Your task to perform on an android device: toggle wifi Image 0: 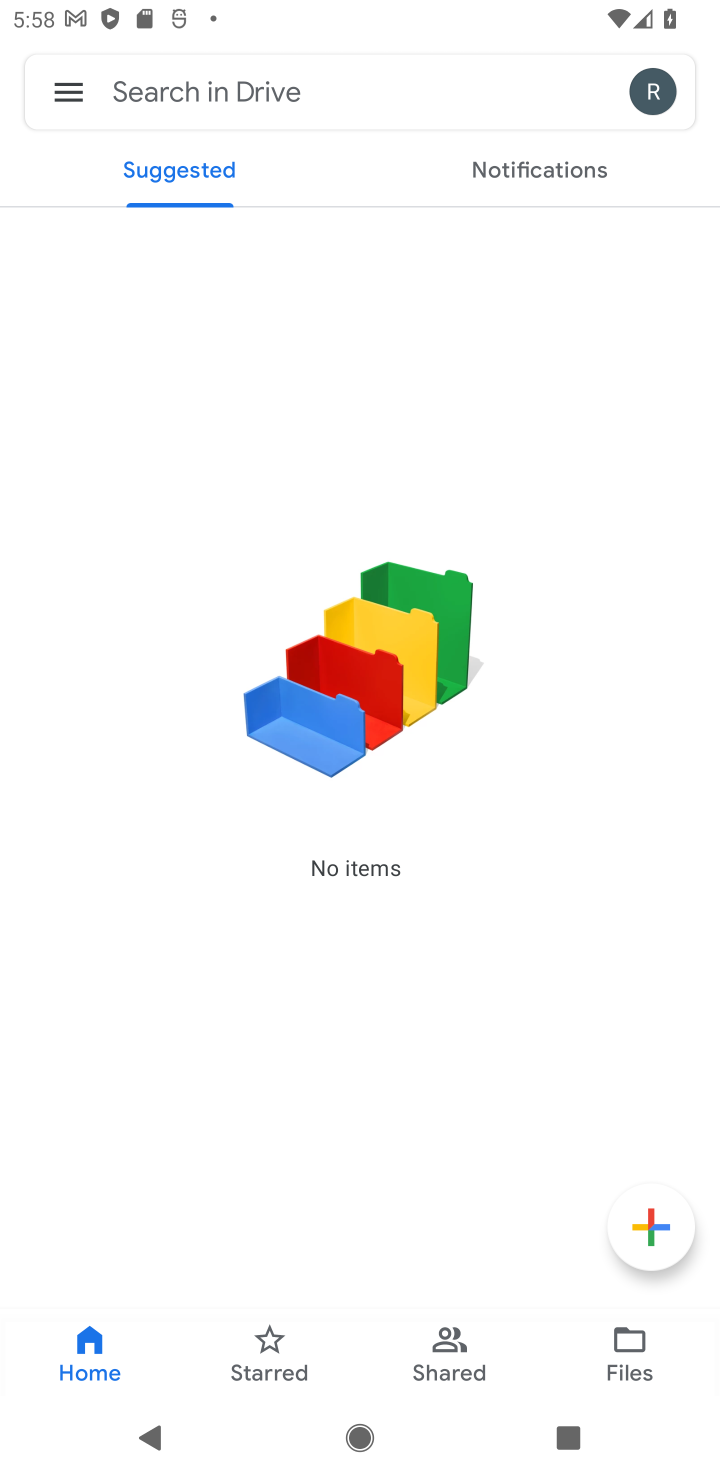
Step 0: press home button
Your task to perform on an android device: toggle wifi Image 1: 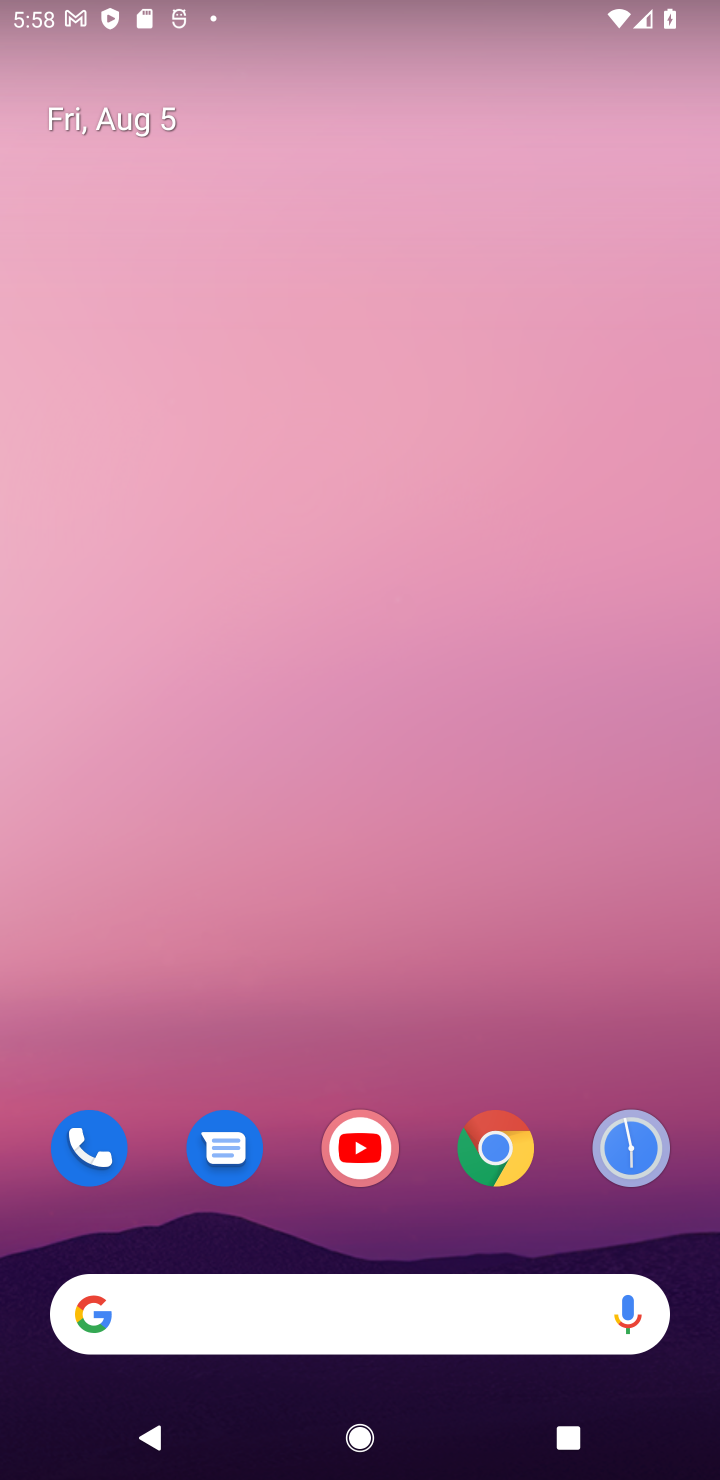
Step 1: drag from (436, 970) to (405, 29)
Your task to perform on an android device: toggle wifi Image 2: 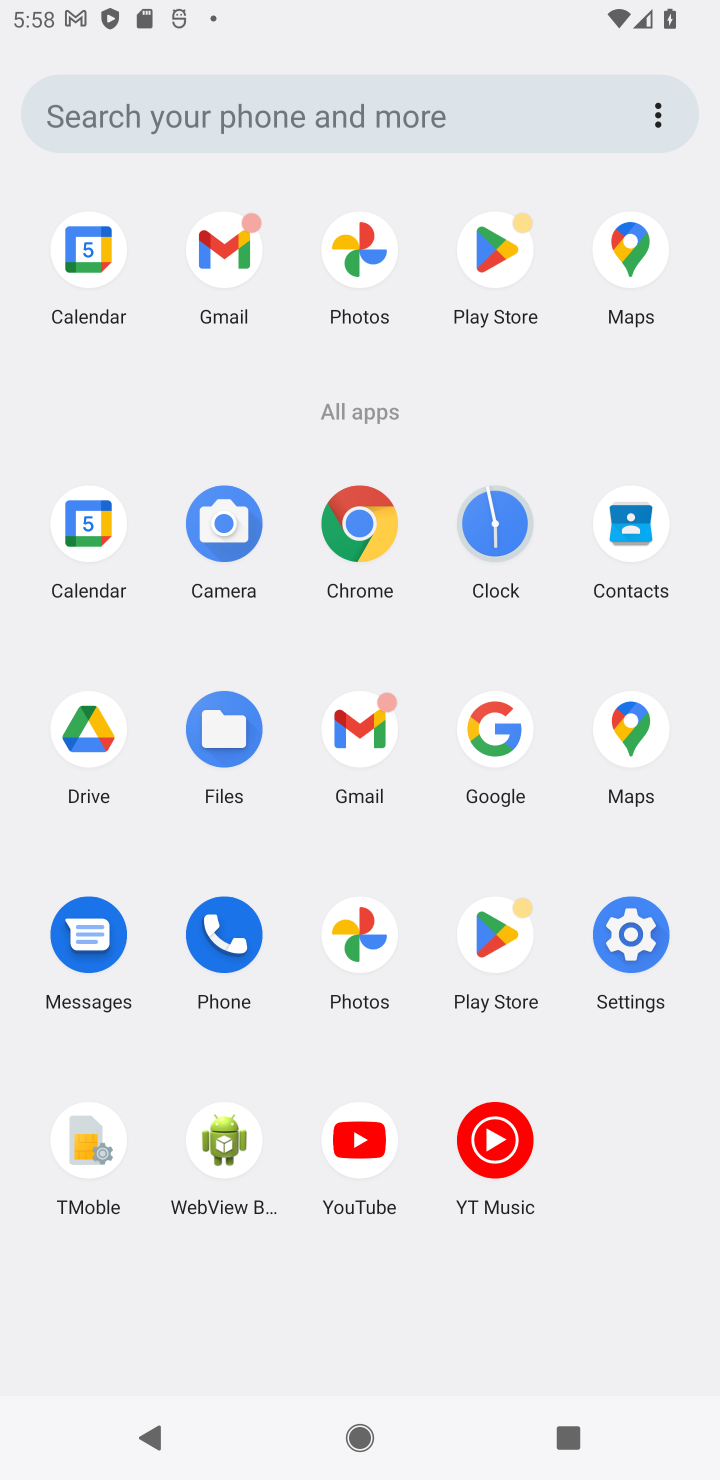
Step 2: click (622, 924)
Your task to perform on an android device: toggle wifi Image 3: 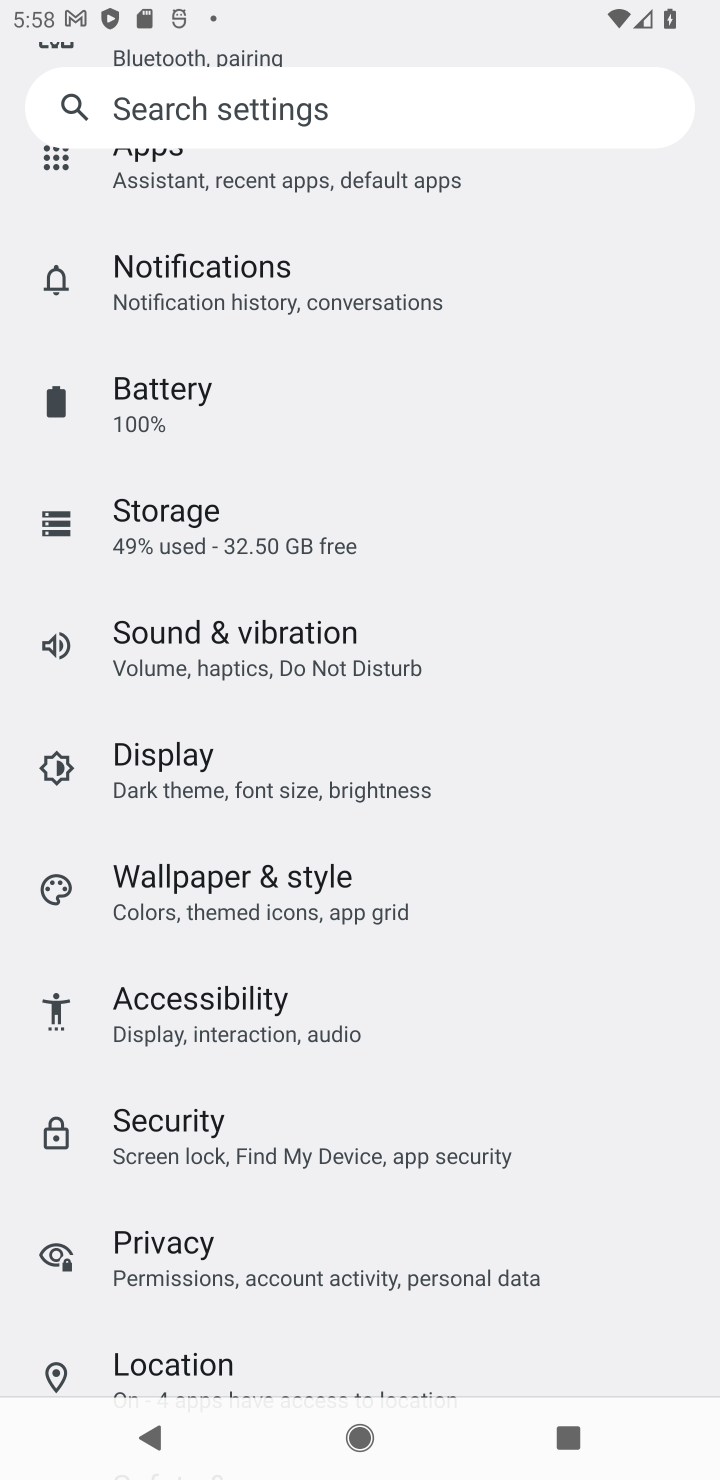
Step 3: drag from (356, 358) to (441, 1185)
Your task to perform on an android device: toggle wifi Image 4: 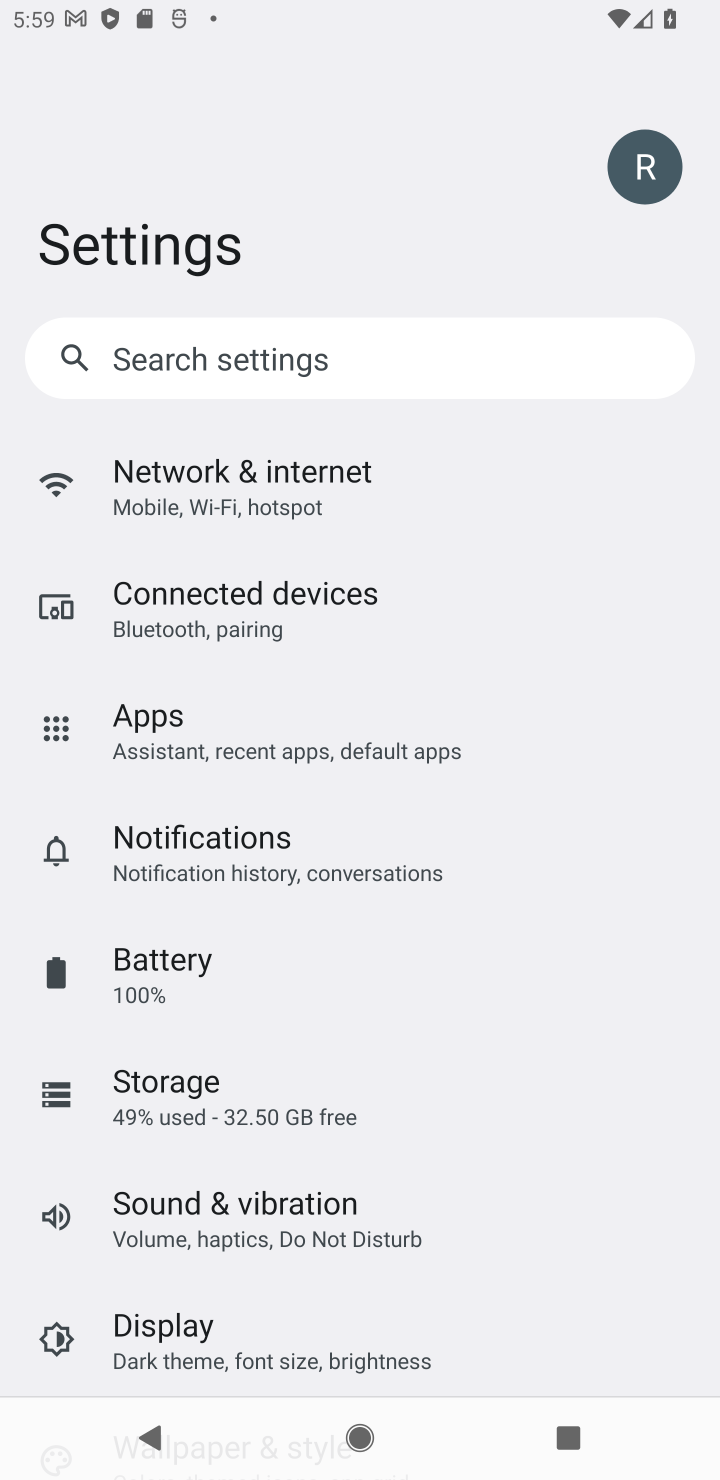
Step 4: click (280, 479)
Your task to perform on an android device: toggle wifi Image 5: 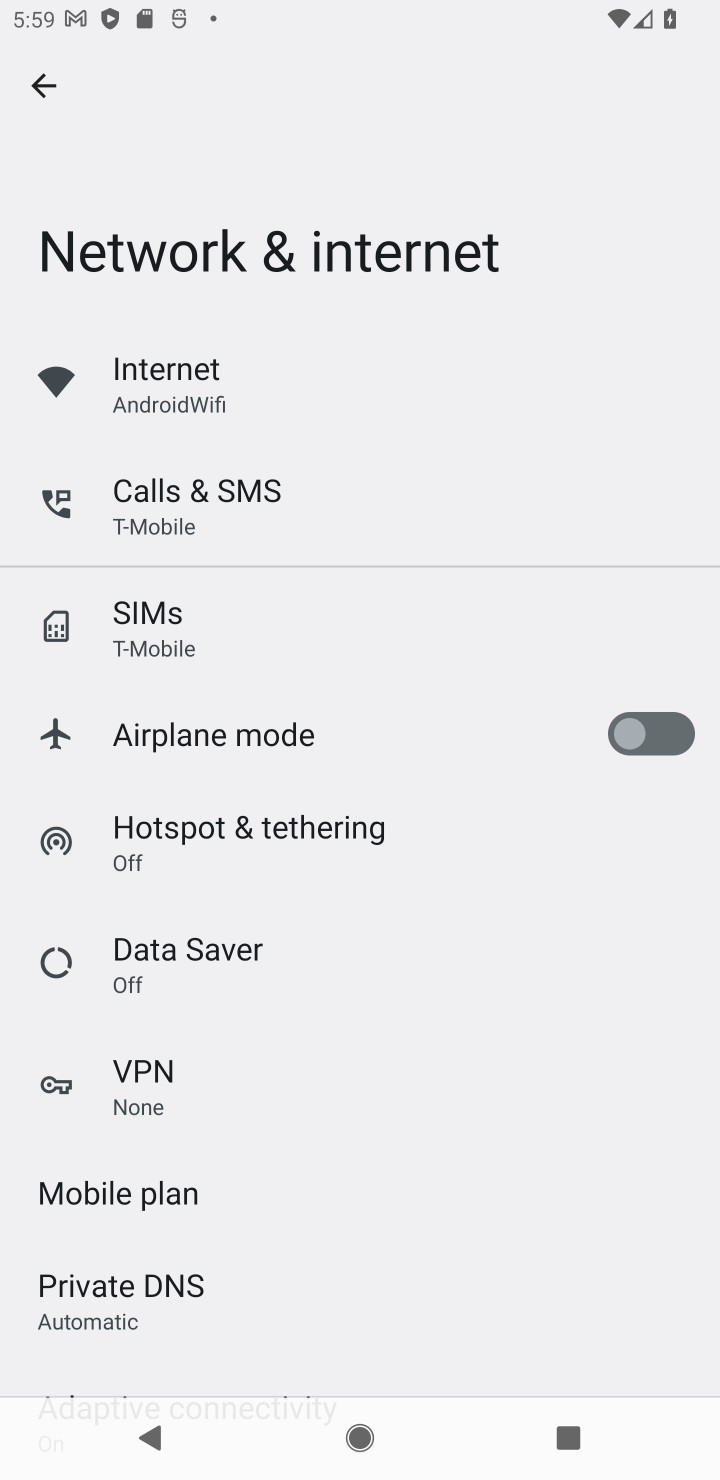
Step 5: click (187, 369)
Your task to perform on an android device: toggle wifi Image 6: 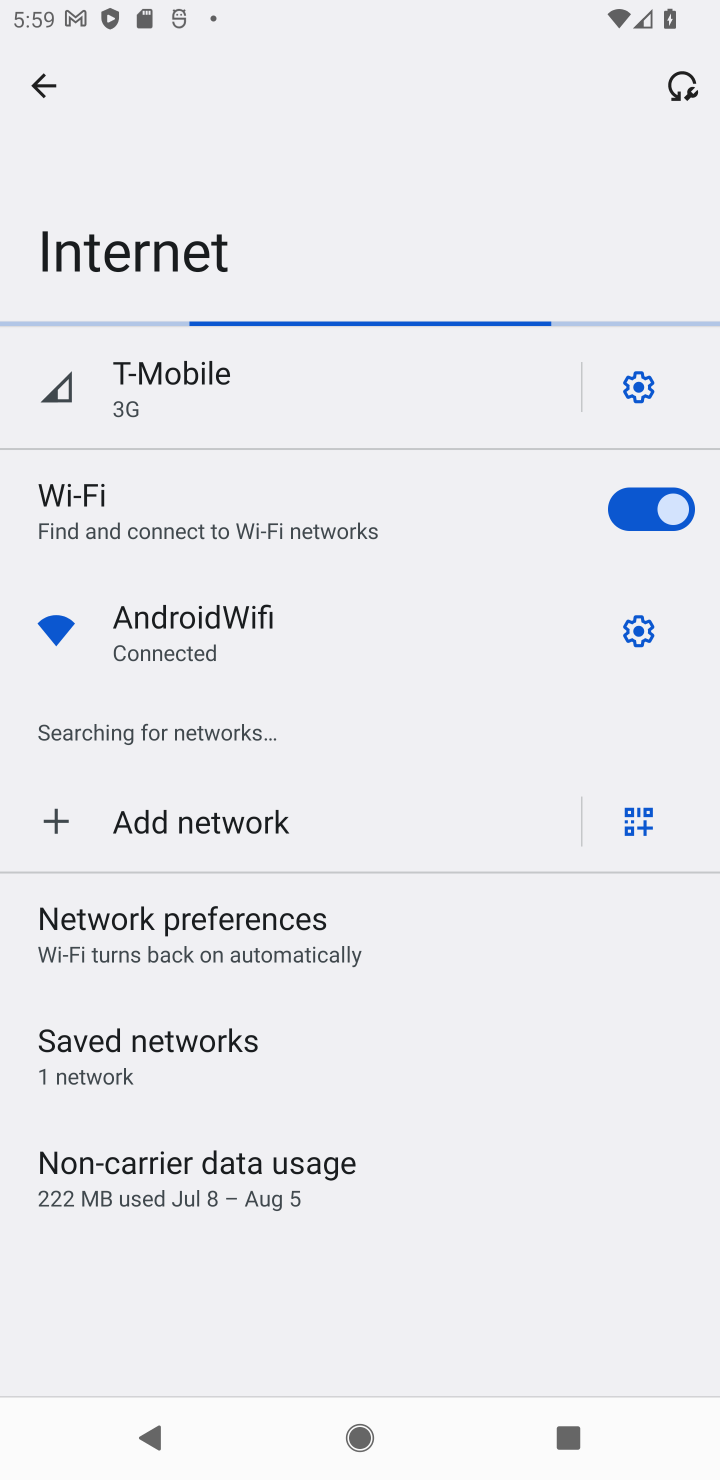
Step 6: click (663, 504)
Your task to perform on an android device: toggle wifi Image 7: 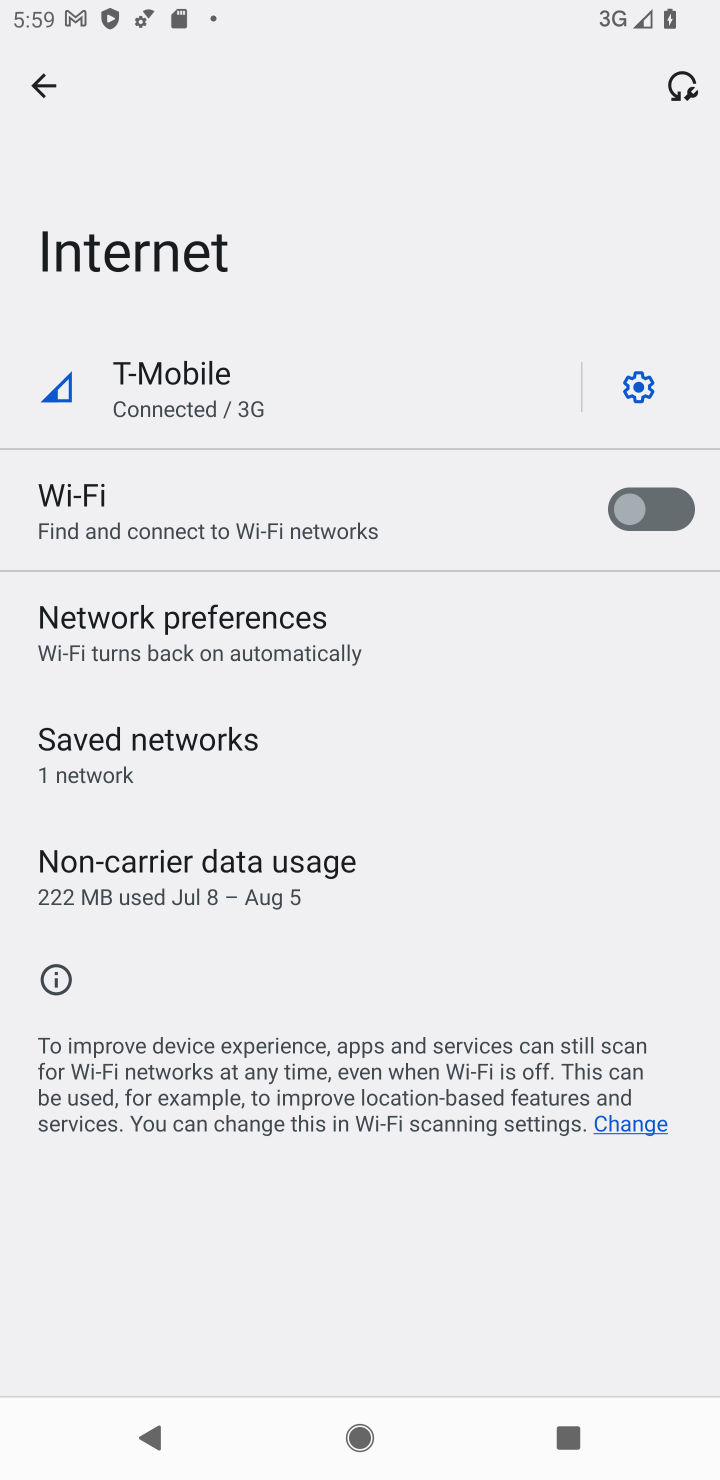
Step 7: task complete